Your task to perform on an android device: turn off translation in the chrome app Image 0: 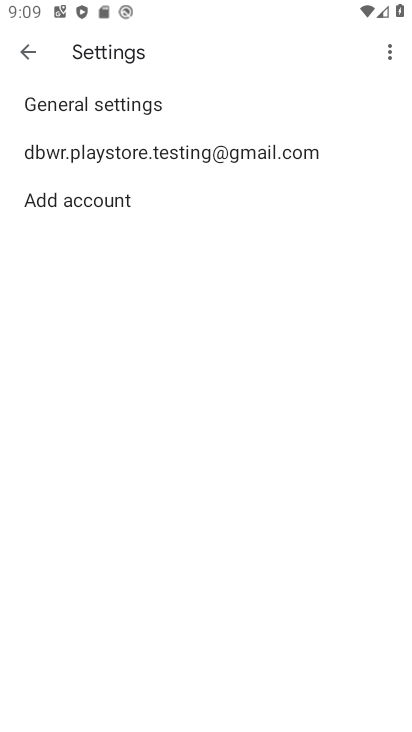
Step 0: press home button
Your task to perform on an android device: turn off translation in the chrome app Image 1: 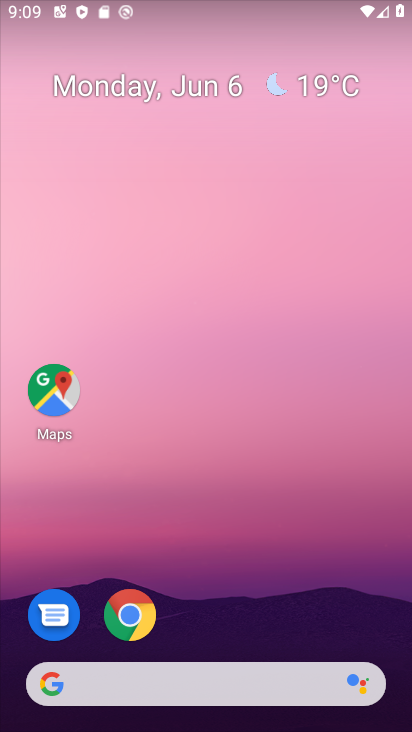
Step 1: click (128, 629)
Your task to perform on an android device: turn off translation in the chrome app Image 2: 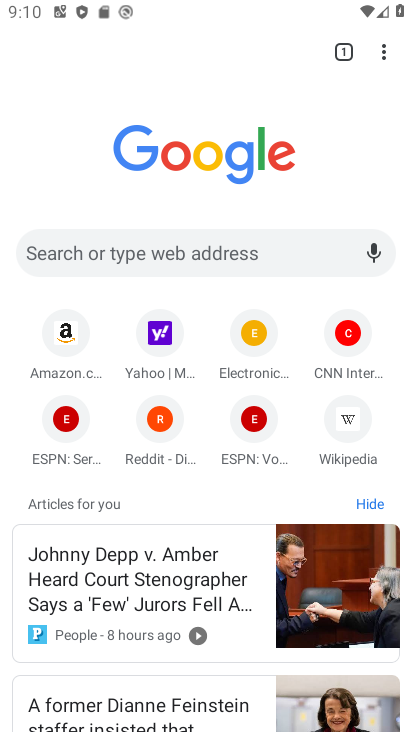
Step 2: click (376, 57)
Your task to perform on an android device: turn off translation in the chrome app Image 3: 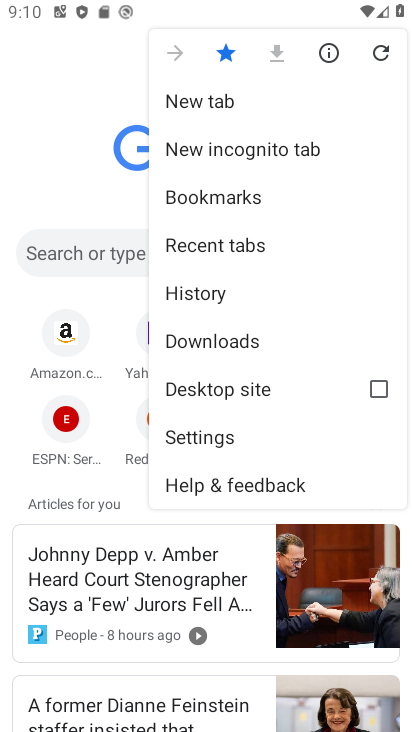
Step 3: click (203, 406)
Your task to perform on an android device: turn off translation in the chrome app Image 4: 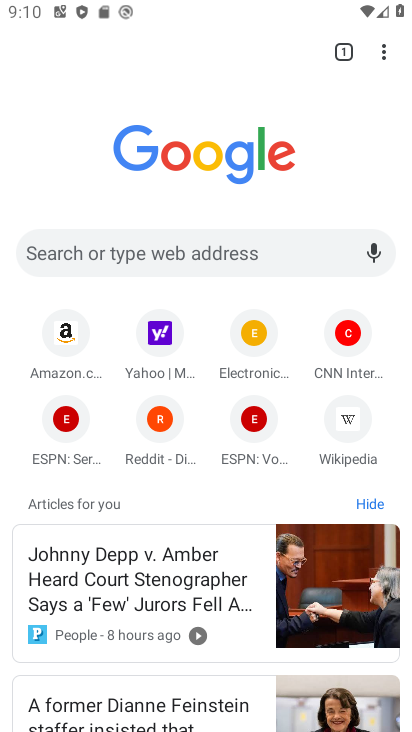
Step 4: click (381, 51)
Your task to perform on an android device: turn off translation in the chrome app Image 5: 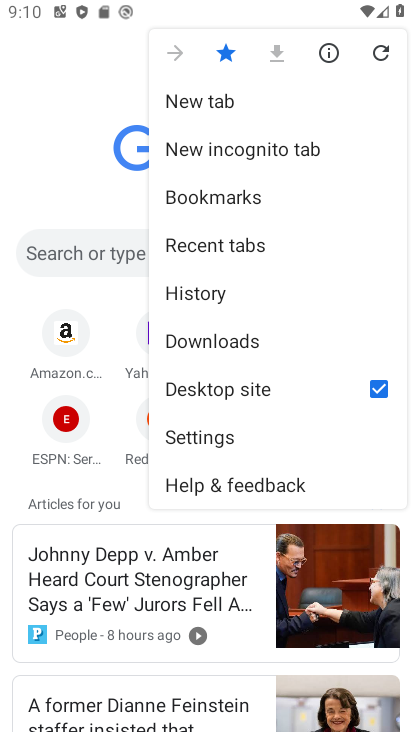
Step 5: click (219, 444)
Your task to perform on an android device: turn off translation in the chrome app Image 6: 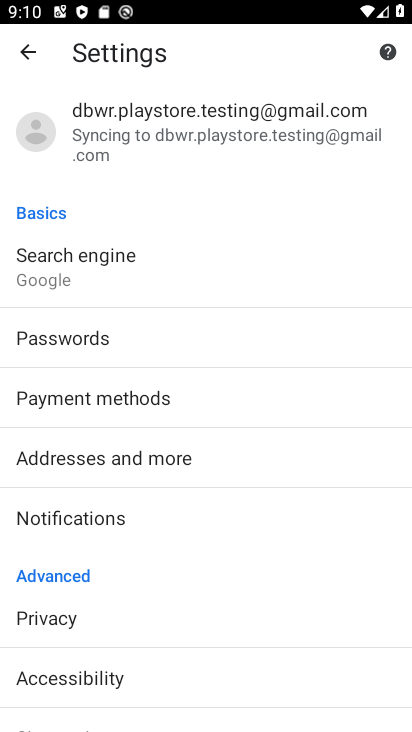
Step 6: drag from (304, 555) to (175, 69)
Your task to perform on an android device: turn off translation in the chrome app Image 7: 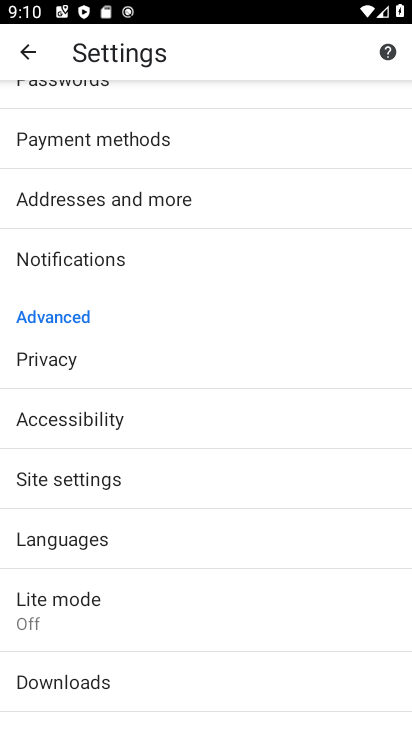
Step 7: click (78, 535)
Your task to perform on an android device: turn off translation in the chrome app Image 8: 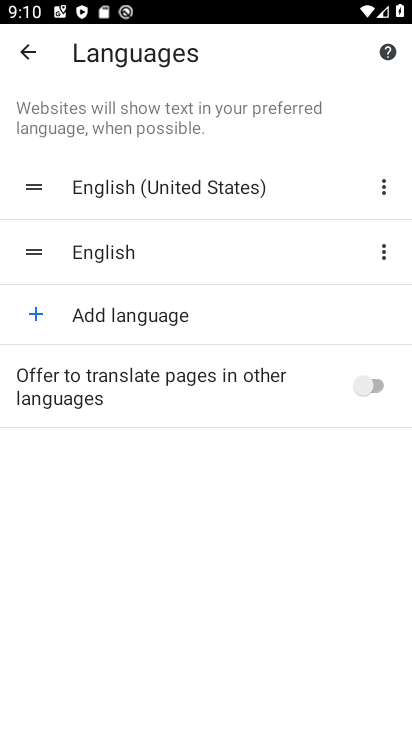
Step 8: task complete